Your task to perform on an android device: change your default location settings in chrome Image 0: 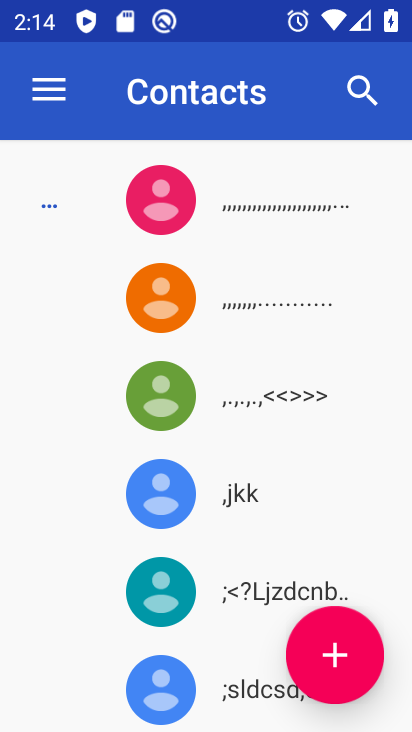
Step 0: press home button
Your task to perform on an android device: change your default location settings in chrome Image 1: 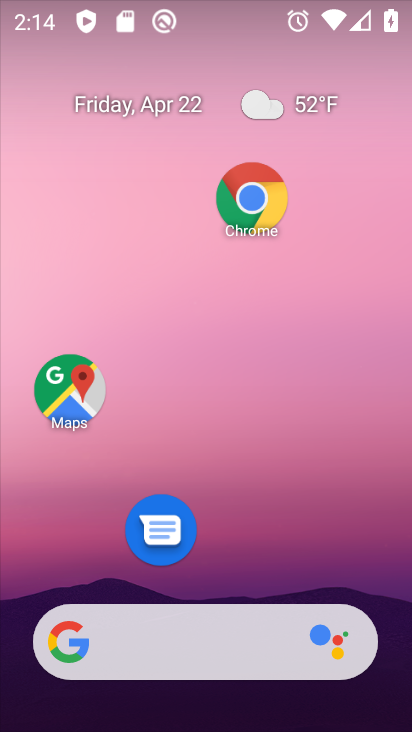
Step 1: click (248, 203)
Your task to perform on an android device: change your default location settings in chrome Image 2: 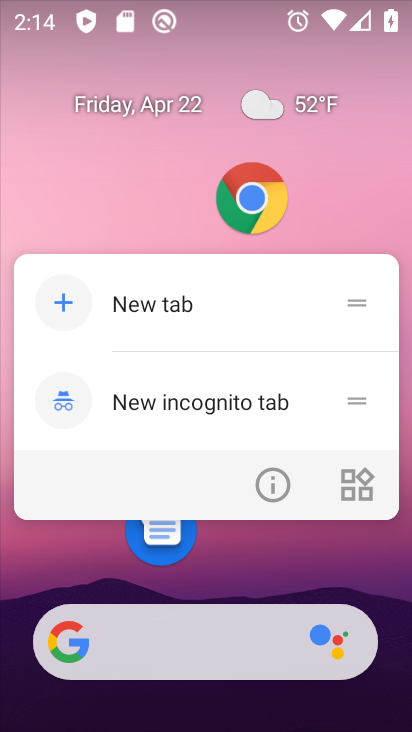
Step 2: click (316, 189)
Your task to perform on an android device: change your default location settings in chrome Image 3: 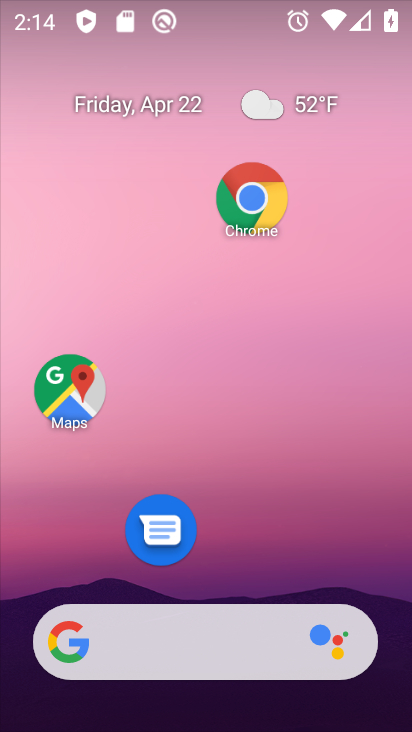
Step 3: click (246, 194)
Your task to perform on an android device: change your default location settings in chrome Image 4: 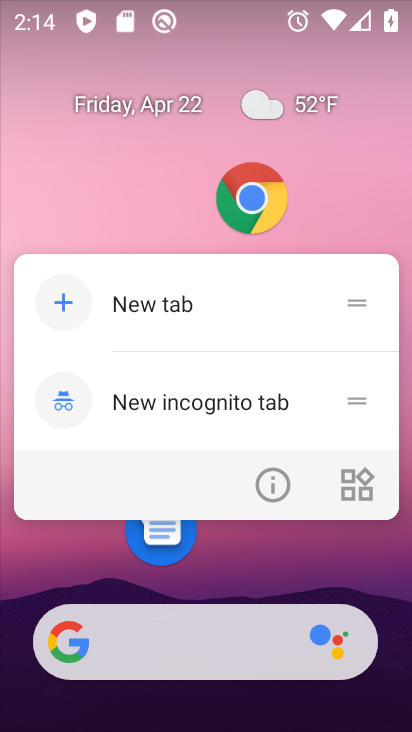
Step 4: click (337, 193)
Your task to perform on an android device: change your default location settings in chrome Image 5: 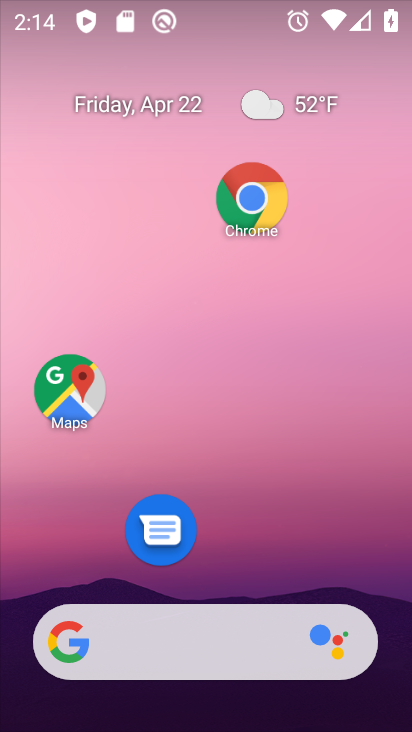
Step 5: drag from (229, 576) to (237, 174)
Your task to perform on an android device: change your default location settings in chrome Image 6: 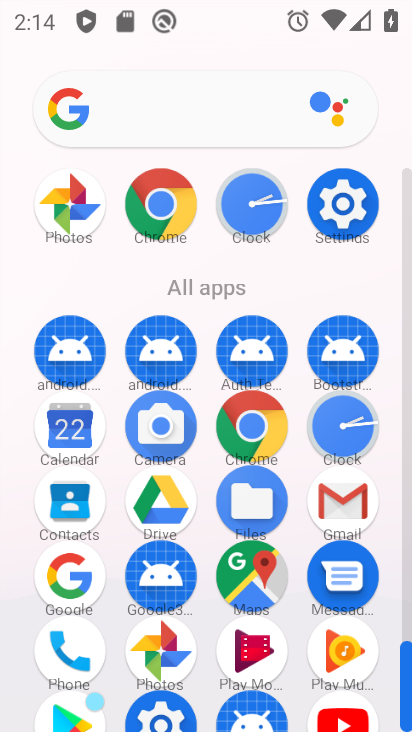
Step 6: click (246, 419)
Your task to perform on an android device: change your default location settings in chrome Image 7: 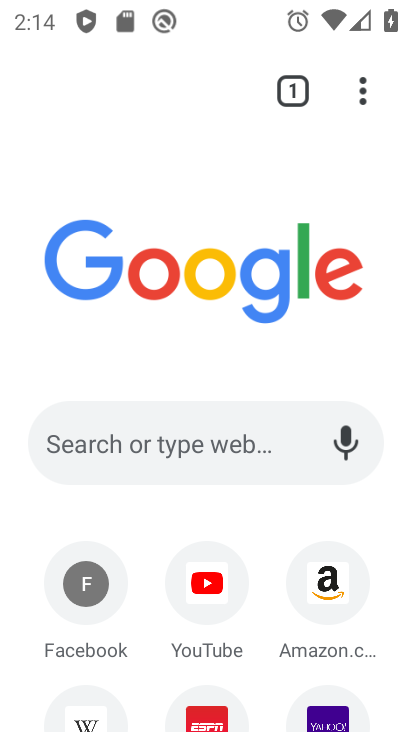
Step 7: click (351, 87)
Your task to perform on an android device: change your default location settings in chrome Image 8: 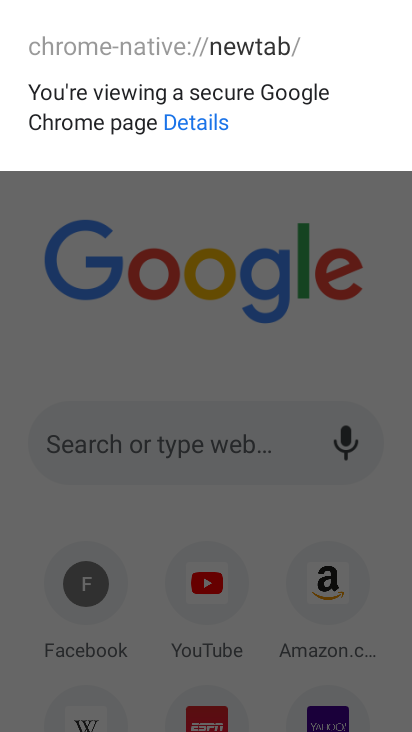
Step 8: click (255, 335)
Your task to perform on an android device: change your default location settings in chrome Image 9: 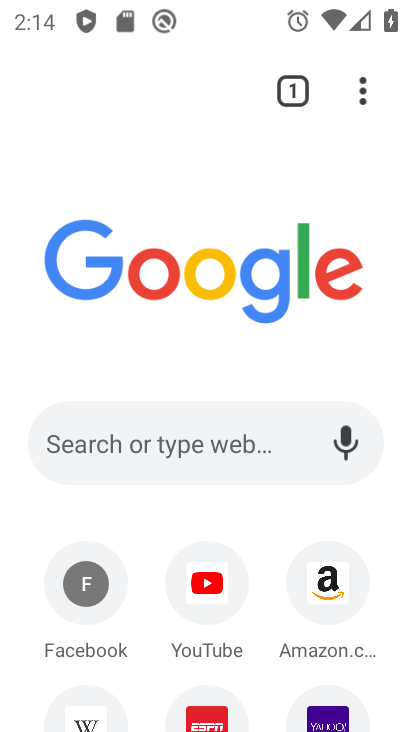
Step 9: click (363, 96)
Your task to perform on an android device: change your default location settings in chrome Image 10: 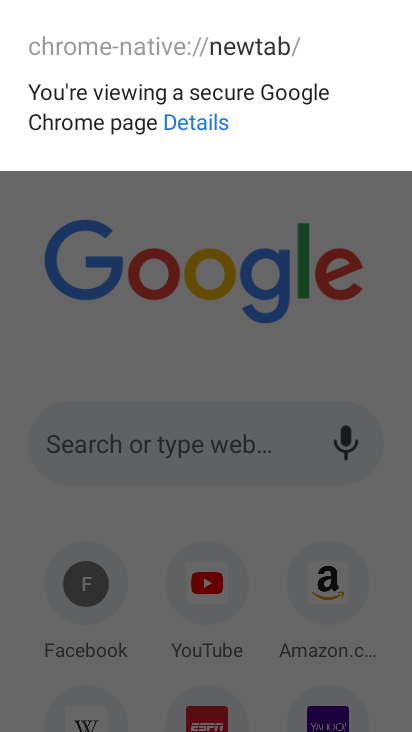
Step 10: click (255, 377)
Your task to perform on an android device: change your default location settings in chrome Image 11: 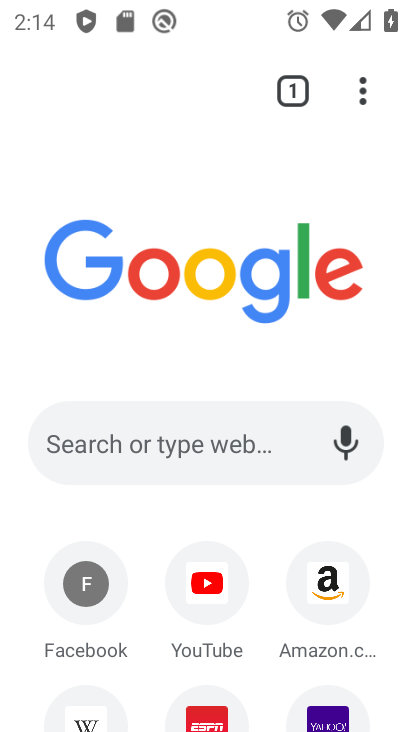
Step 11: click (360, 94)
Your task to perform on an android device: change your default location settings in chrome Image 12: 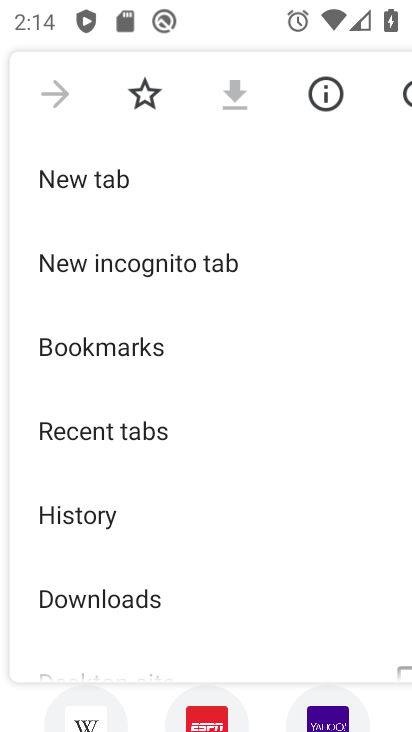
Step 12: drag from (177, 627) to (228, 239)
Your task to perform on an android device: change your default location settings in chrome Image 13: 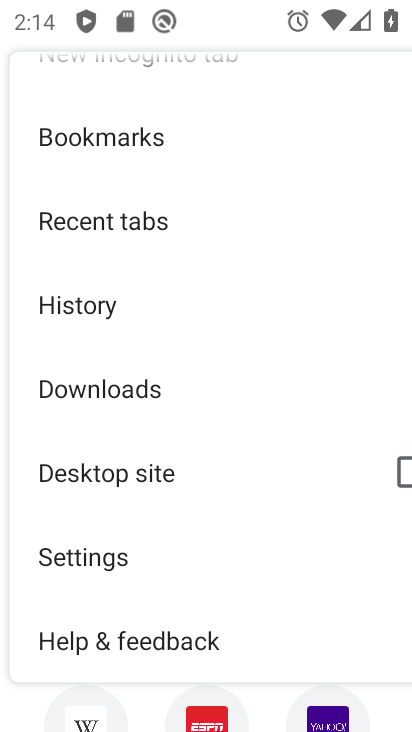
Step 13: click (148, 557)
Your task to perform on an android device: change your default location settings in chrome Image 14: 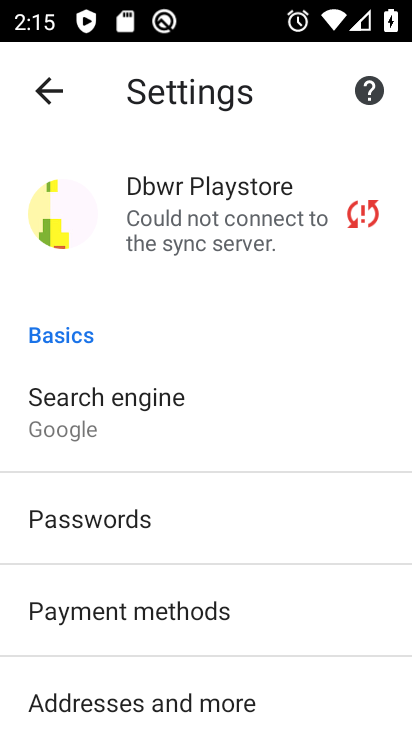
Step 14: drag from (236, 647) to (244, 145)
Your task to perform on an android device: change your default location settings in chrome Image 15: 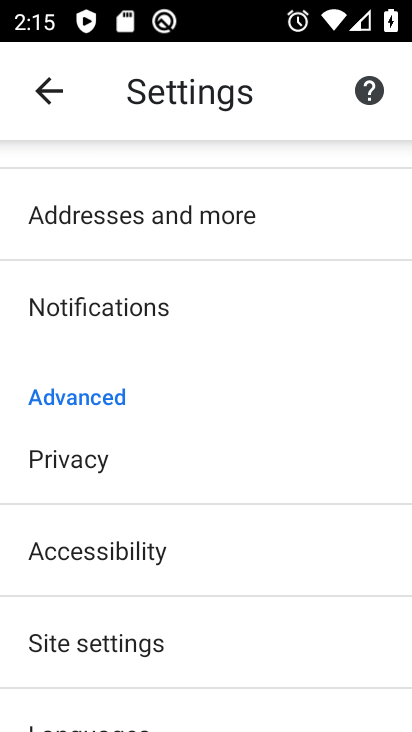
Step 15: drag from (194, 660) to (235, 328)
Your task to perform on an android device: change your default location settings in chrome Image 16: 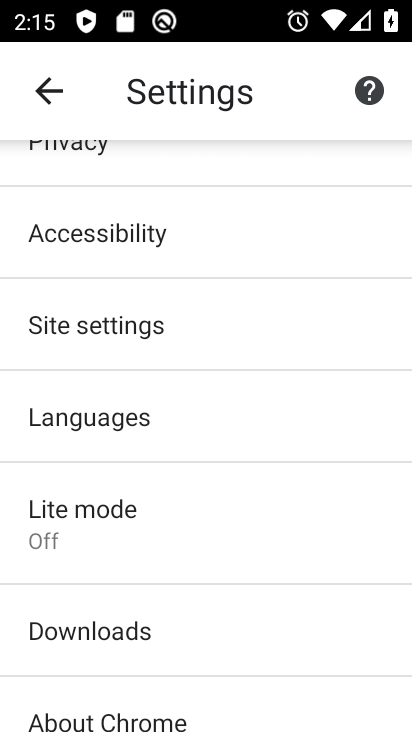
Step 16: click (177, 424)
Your task to perform on an android device: change your default location settings in chrome Image 17: 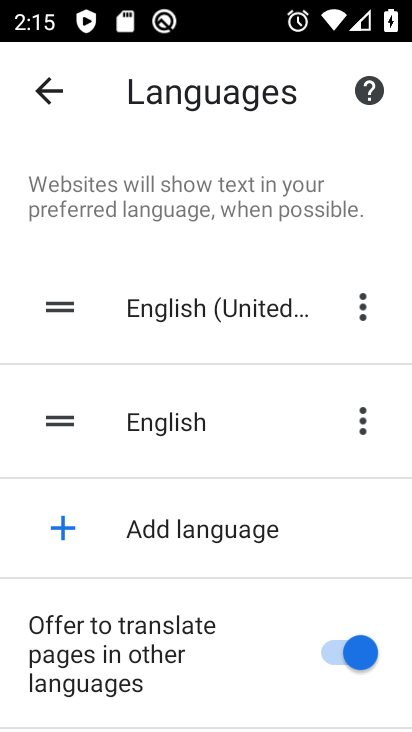
Step 17: drag from (204, 661) to (232, 396)
Your task to perform on an android device: change your default location settings in chrome Image 18: 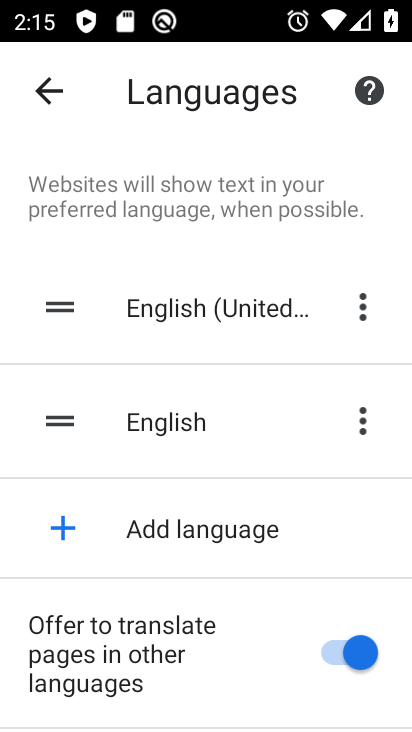
Step 18: click (56, 87)
Your task to perform on an android device: change your default location settings in chrome Image 19: 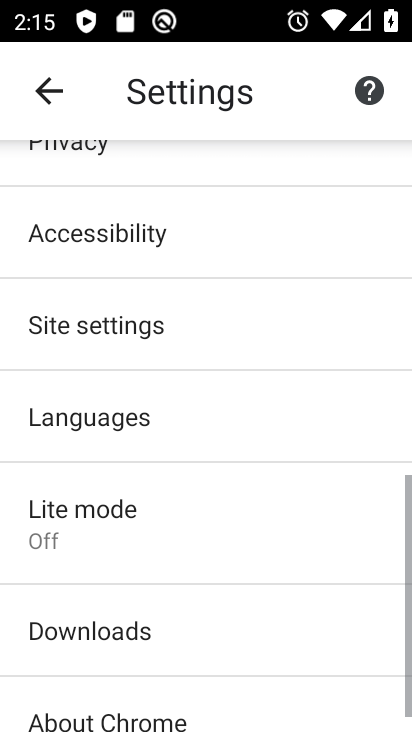
Step 19: click (172, 315)
Your task to perform on an android device: change your default location settings in chrome Image 20: 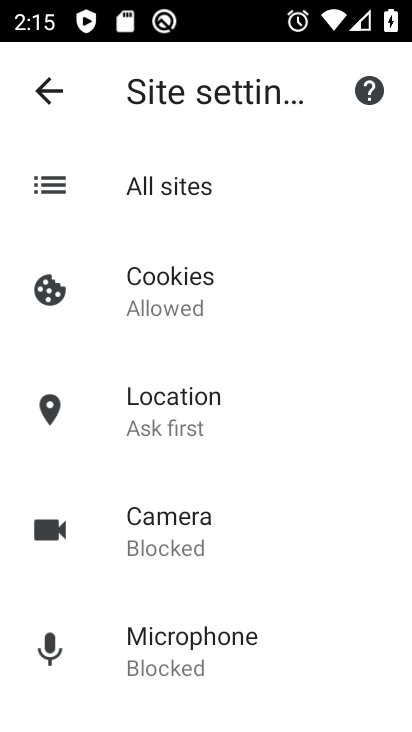
Step 20: click (188, 419)
Your task to perform on an android device: change your default location settings in chrome Image 21: 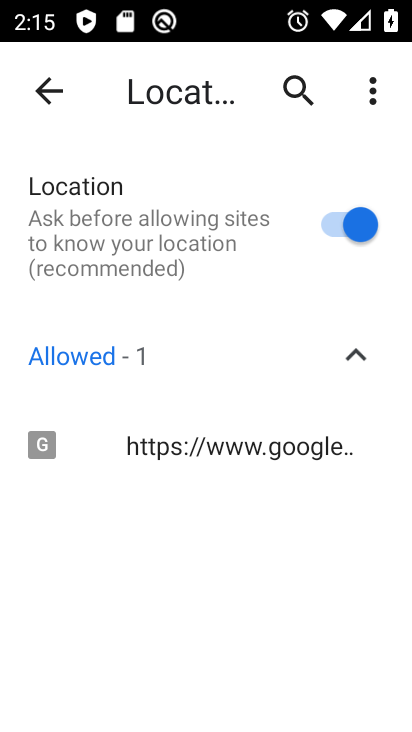
Step 21: click (321, 225)
Your task to perform on an android device: change your default location settings in chrome Image 22: 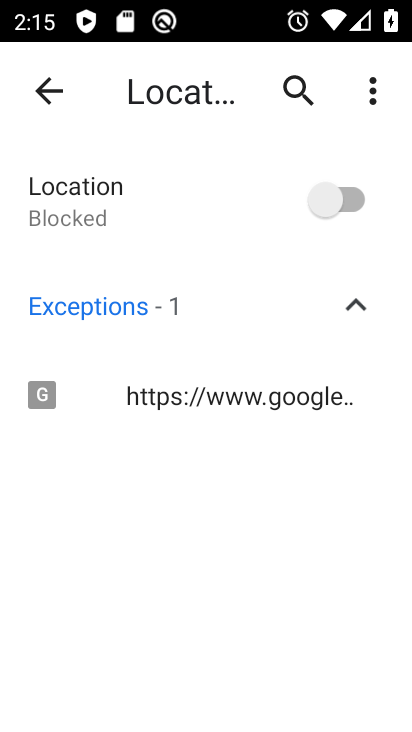
Step 22: task complete